Your task to perform on an android device: Open the calendar app, open the side menu, and click the "Day" option Image 0: 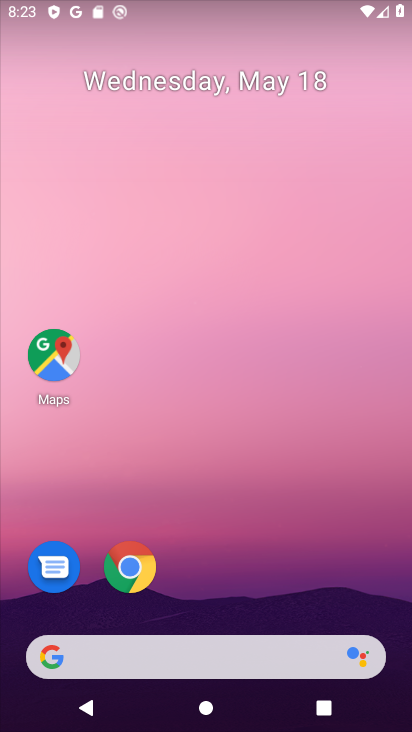
Step 0: drag from (256, 540) to (283, 25)
Your task to perform on an android device: Open the calendar app, open the side menu, and click the "Day" option Image 1: 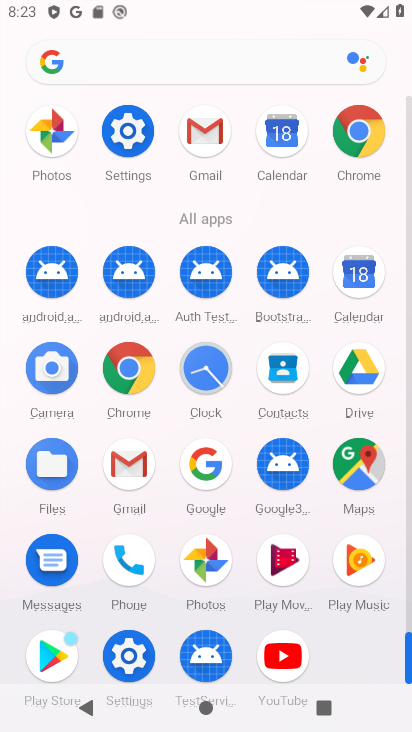
Step 1: click (359, 267)
Your task to perform on an android device: Open the calendar app, open the side menu, and click the "Day" option Image 2: 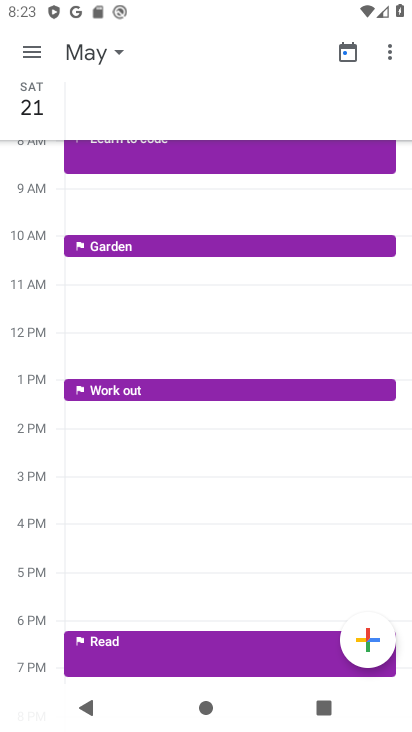
Step 2: click (86, 59)
Your task to perform on an android device: Open the calendar app, open the side menu, and click the "Day" option Image 3: 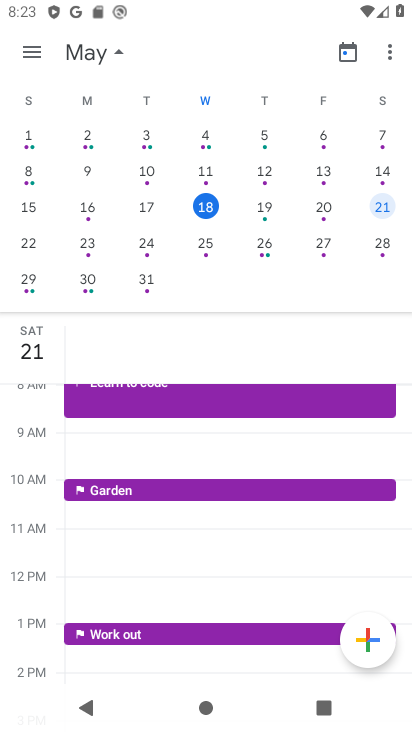
Step 3: click (36, 49)
Your task to perform on an android device: Open the calendar app, open the side menu, and click the "Day" option Image 4: 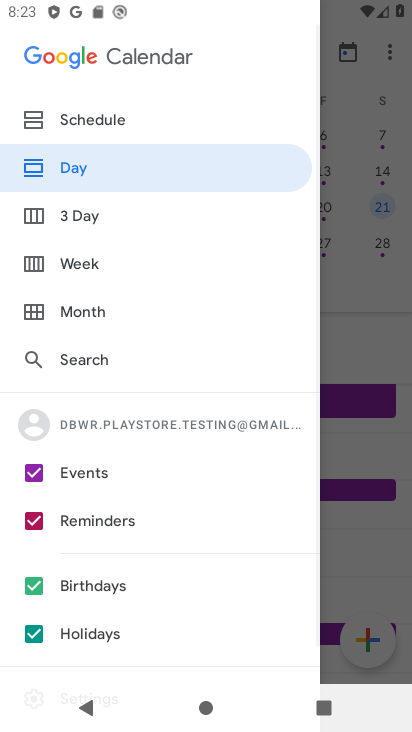
Step 4: click (114, 162)
Your task to perform on an android device: Open the calendar app, open the side menu, and click the "Day" option Image 5: 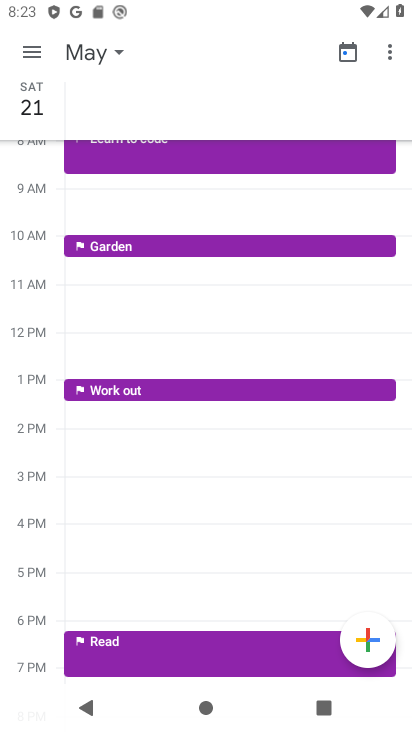
Step 5: task complete